Your task to perform on an android device: How much does a 2x4x8 board cost at Lowes? Image 0: 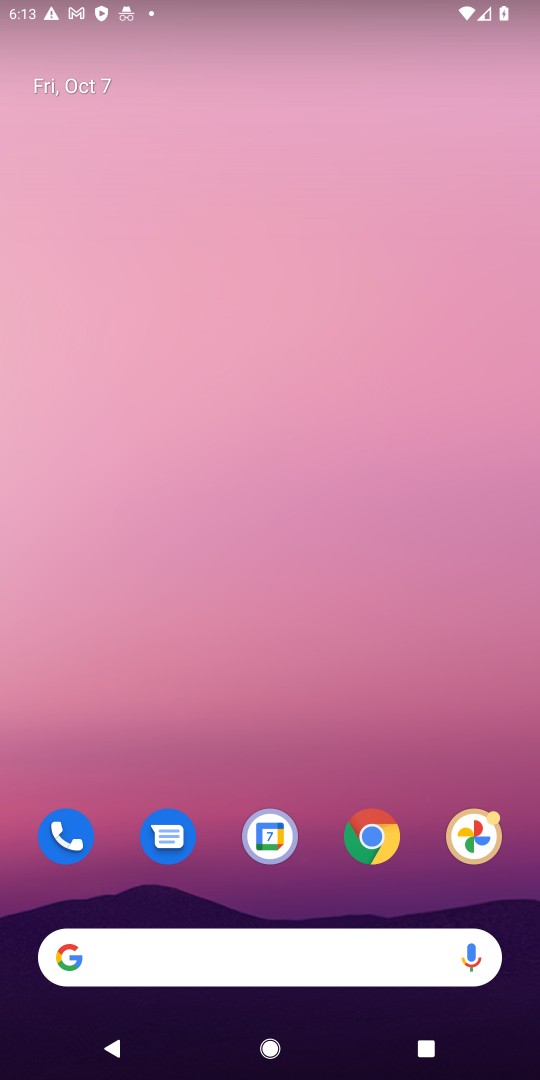
Step 0: drag from (220, 890) to (241, 205)
Your task to perform on an android device: How much does a 2x4x8 board cost at Lowes? Image 1: 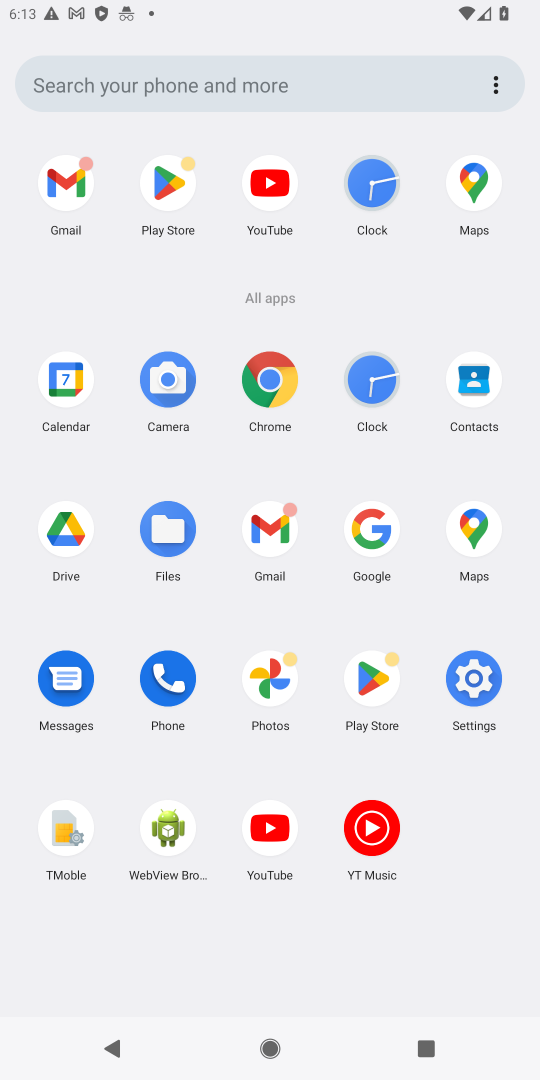
Step 1: press home button
Your task to perform on an android device: How much does a 2x4x8 board cost at Lowes? Image 2: 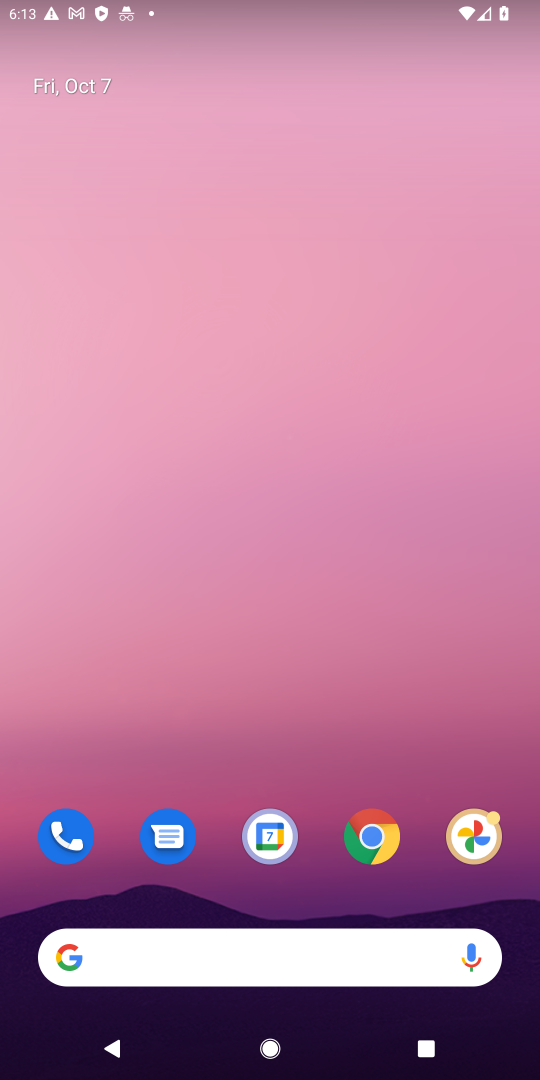
Step 2: click (289, 950)
Your task to perform on an android device: How much does a 2x4x8 board cost at Lowes? Image 3: 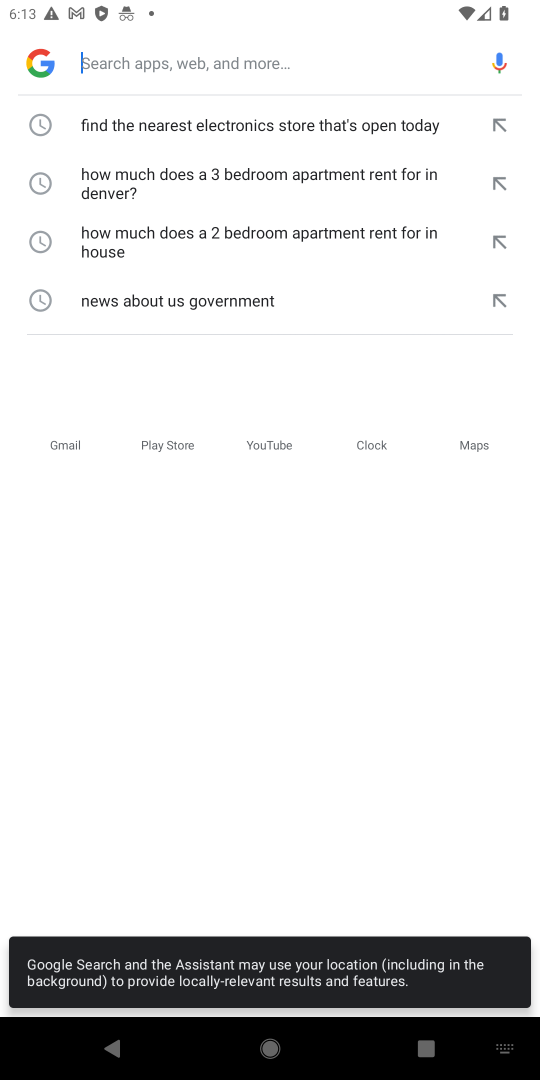
Step 3: type "How much does a 2x4x8 board cost at Lowes?"
Your task to perform on an android device: How much does a 2x4x8 board cost at Lowes? Image 4: 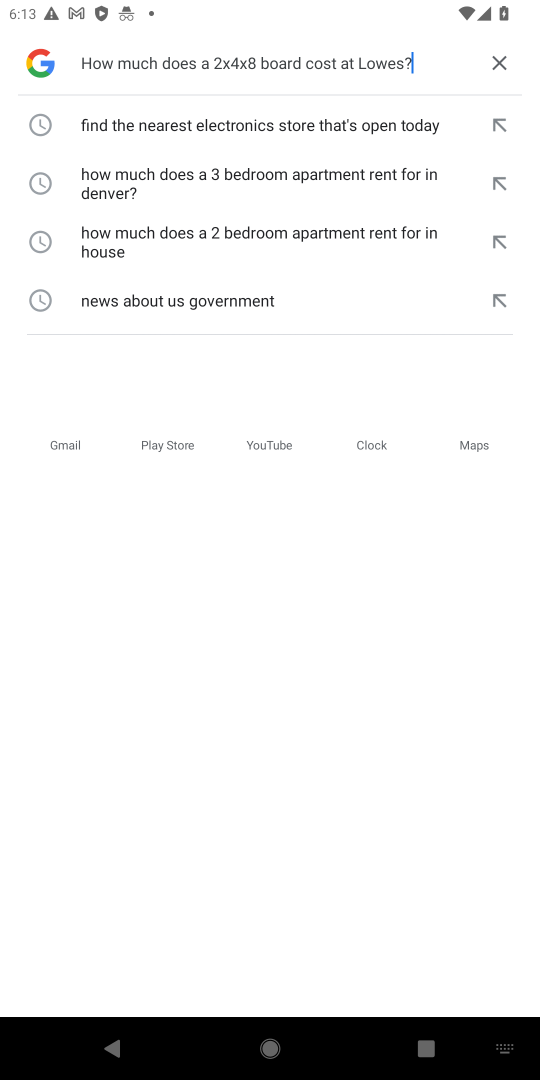
Step 4: click (286, 129)
Your task to perform on an android device: How much does a 2x4x8 board cost at Lowes? Image 5: 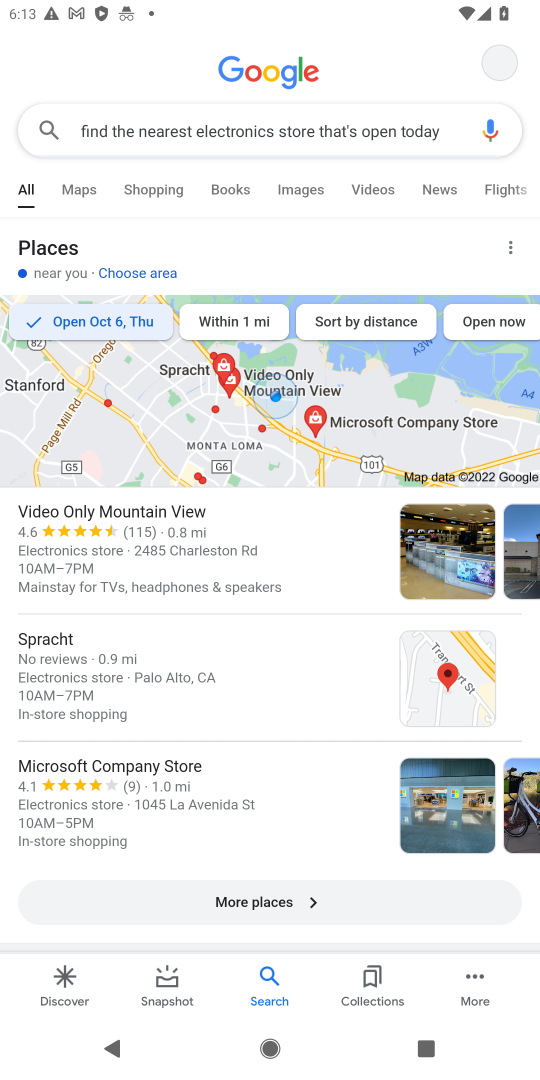
Step 5: task complete